Your task to perform on an android device: open chrome and create a bookmark for the current page Image 0: 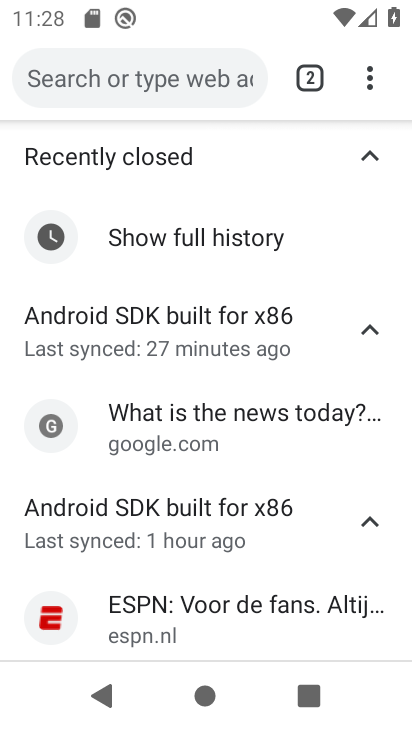
Step 0: press home button
Your task to perform on an android device: open chrome and create a bookmark for the current page Image 1: 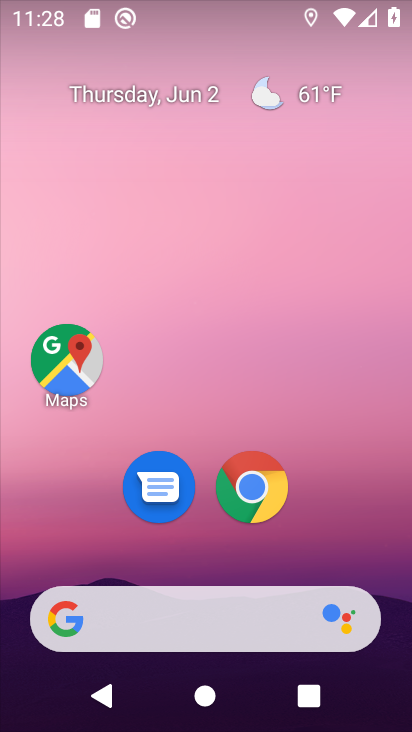
Step 1: click (248, 484)
Your task to perform on an android device: open chrome and create a bookmark for the current page Image 2: 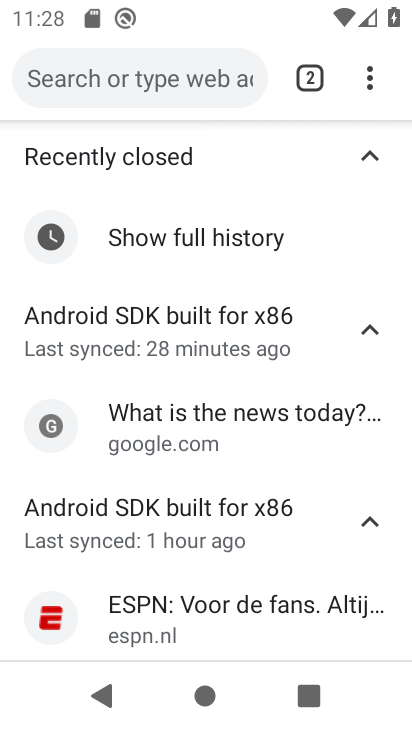
Step 2: click (368, 73)
Your task to perform on an android device: open chrome and create a bookmark for the current page Image 3: 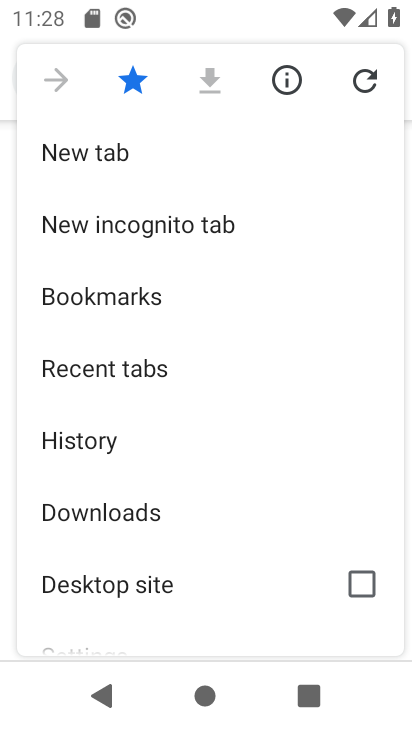
Step 3: task complete